Your task to perform on an android device: Open the calendar and show me this week's events? Image 0: 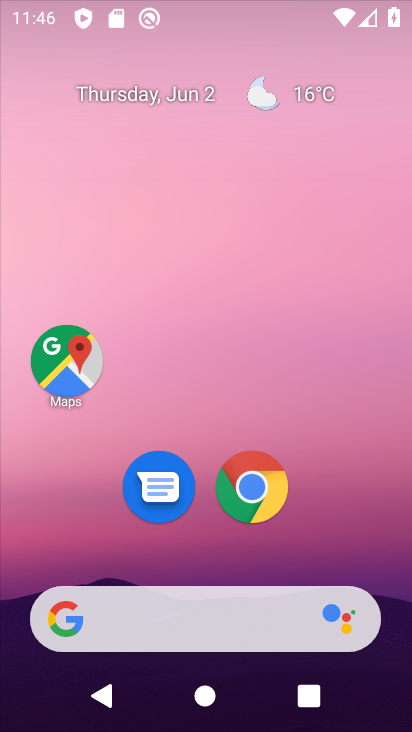
Step 0: press home button
Your task to perform on an android device: Open the calendar and show me this week's events? Image 1: 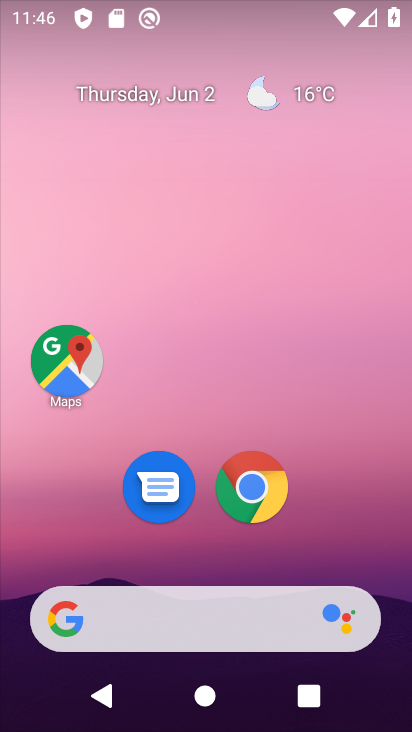
Step 1: drag from (192, 482) to (198, 0)
Your task to perform on an android device: Open the calendar and show me this week's events? Image 2: 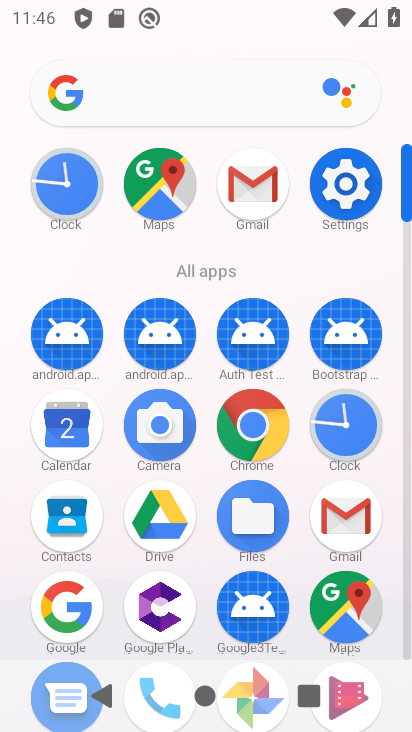
Step 2: click (66, 454)
Your task to perform on an android device: Open the calendar and show me this week's events? Image 3: 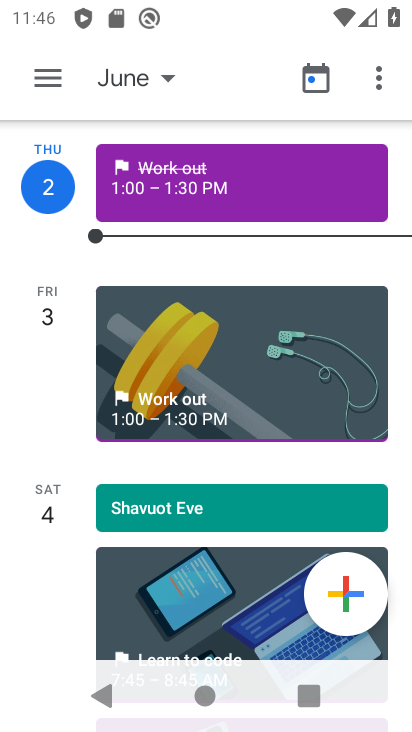
Step 3: task complete